Your task to perform on an android device: all mails in gmail Image 0: 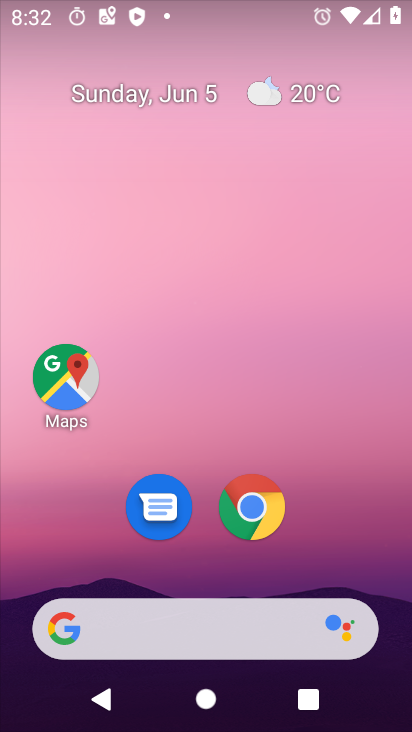
Step 0: drag from (340, 538) to (237, 32)
Your task to perform on an android device: all mails in gmail Image 1: 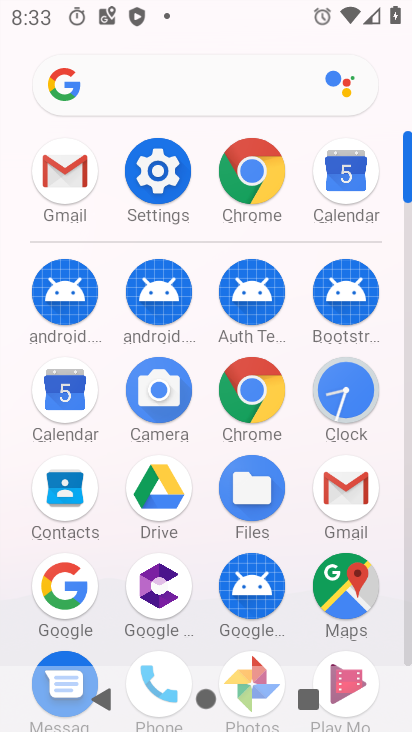
Step 1: click (249, 169)
Your task to perform on an android device: all mails in gmail Image 2: 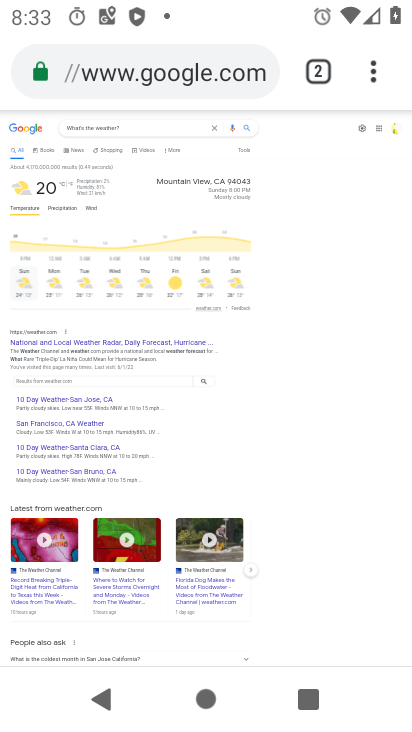
Step 2: press back button
Your task to perform on an android device: all mails in gmail Image 3: 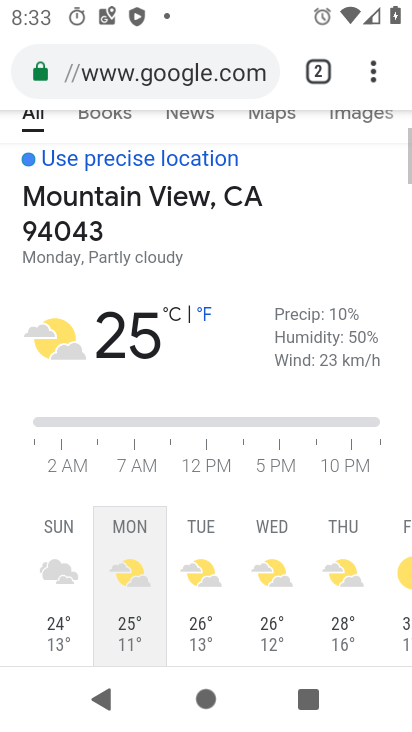
Step 3: press home button
Your task to perform on an android device: all mails in gmail Image 4: 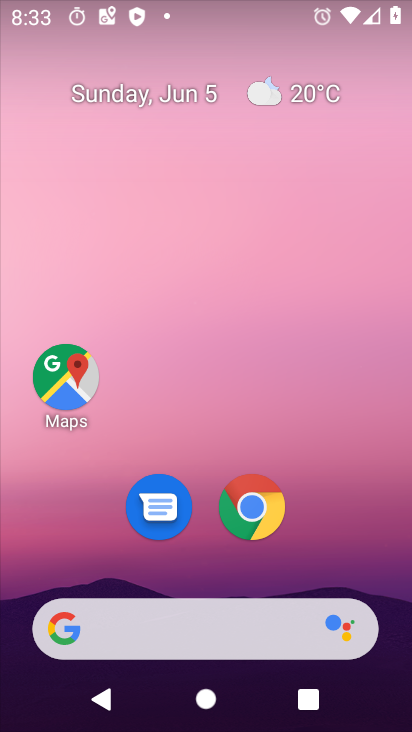
Step 4: drag from (347, 538) to (268, 32)
Your task to perform on an android device: all mails in gmail Image 5: 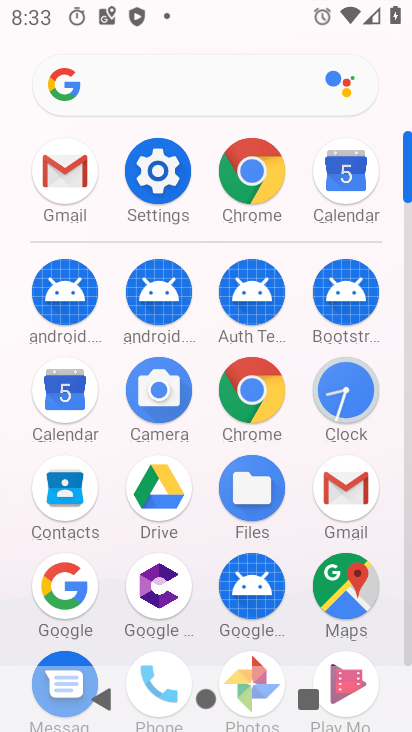
Step 5: click (343, 484)
Your task to perform on an android device: all mails in gmail Image 6: 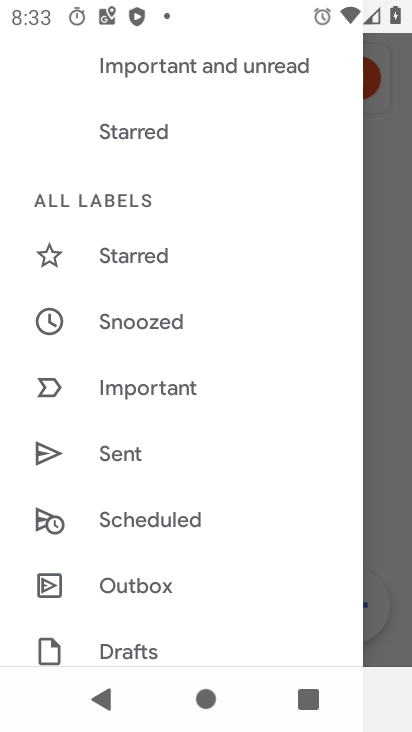
Step 6: drag from (271, 139) to (251, 556)
Your task to perform on an android device: all mails in gmail Image 7: 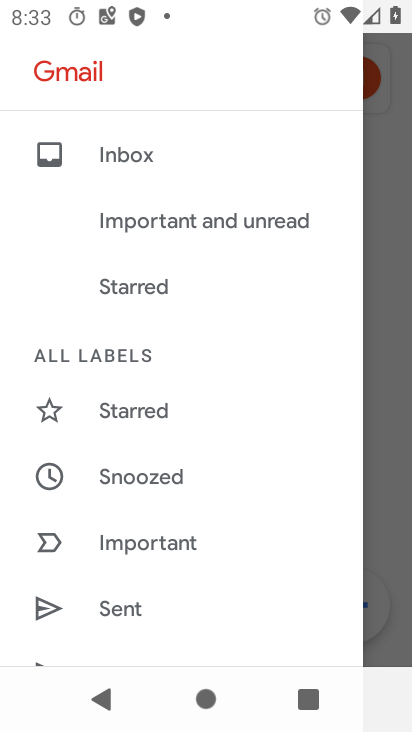
Step 7: drag from (257, 537) to (254, 186)
Your task to perform on an android device: all mails in gmail Image 8: 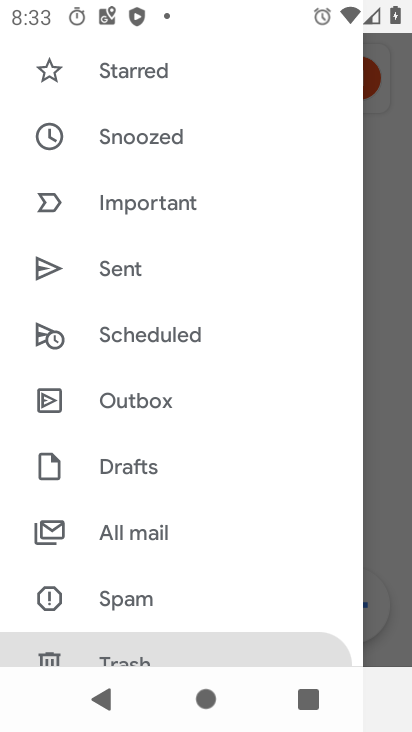
Step 8: click (149, 527)
Your task to perform on an android device: all mails in gmail Image 9: 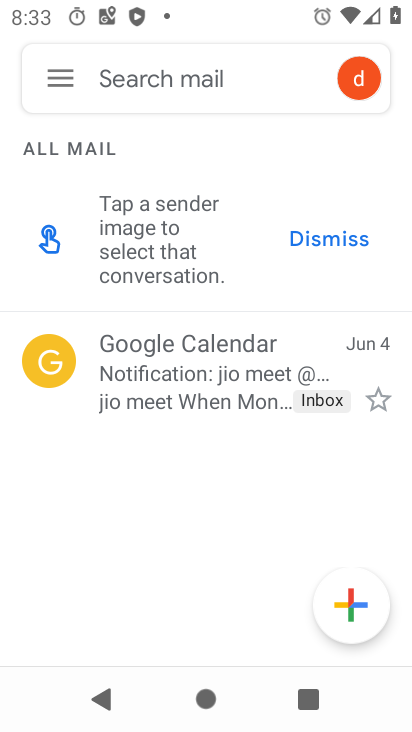
Step 9: click (66, 66)
Your task to perform on an android device: all mails in gmail Image 10: 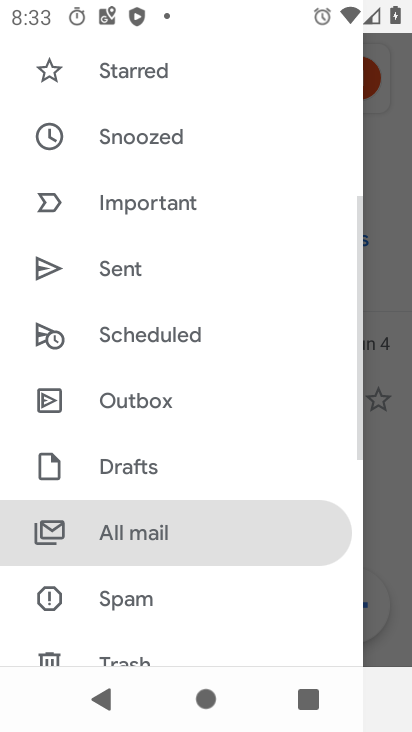
Step 10: click (214, 514)
Your task to perform on an android device: all mails in gmail Image 11: 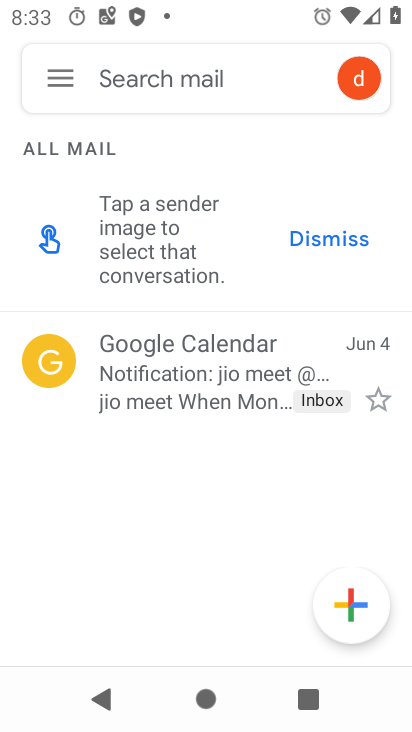
Step 11: task complete